Your task to perform on an android device: toggle wifi Image 0: 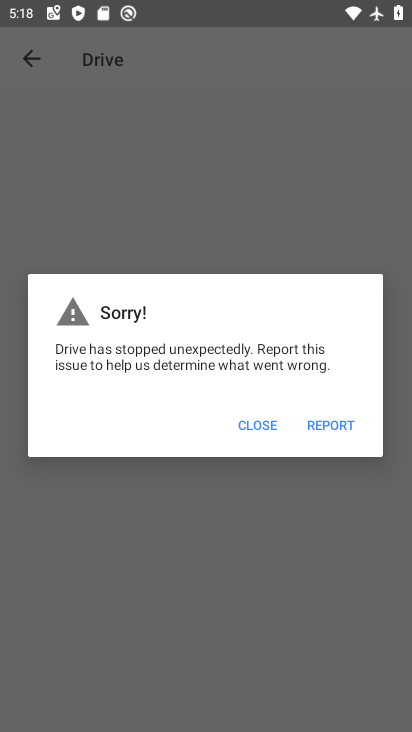
Step 0: press home button
Your task to perform on an android device: toggle wifi Image 1: 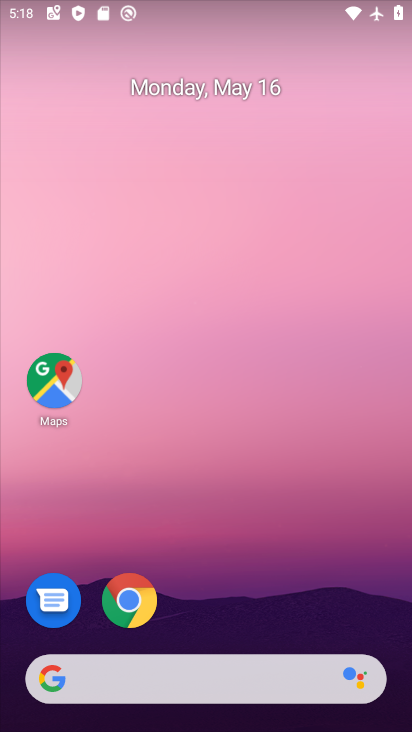
Step 1: drag from (224, 642) to (157, 52)
Your task to perform on an android device: toggle wifi Image 2: 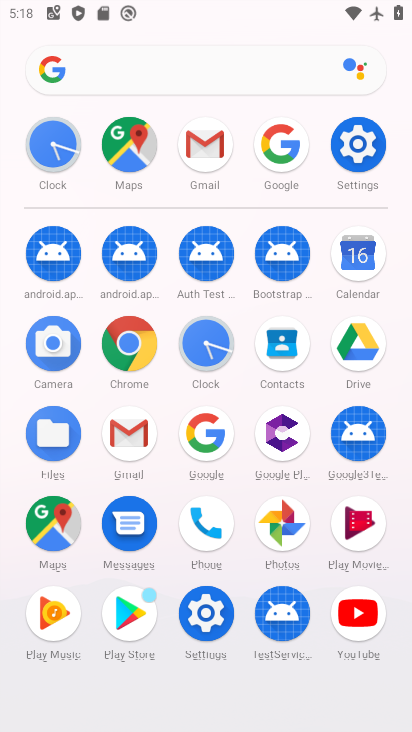
Step 2: click (360, 131)
Your task to perform on an android device: toggle wifi Image 3: 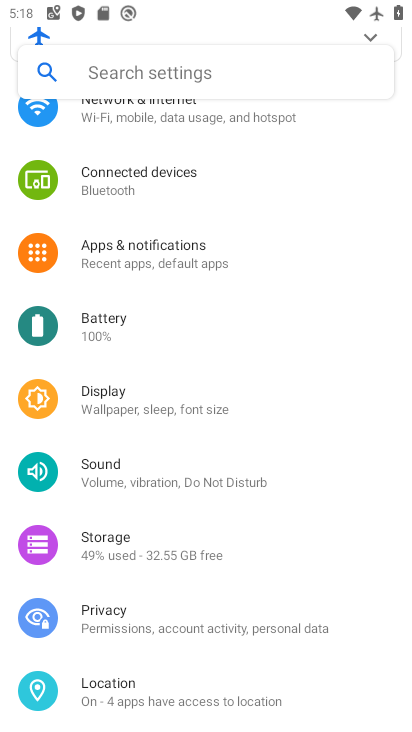
Step 3: click (168, 127)
Your task to perform on an android device: toggle wifi Image 4: 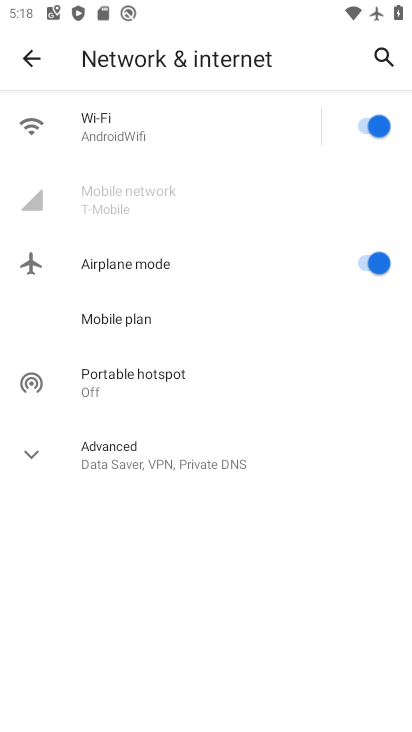
Step 4: click (374, 123)
Your task to perform on an android device: toggle wifi Image 5: 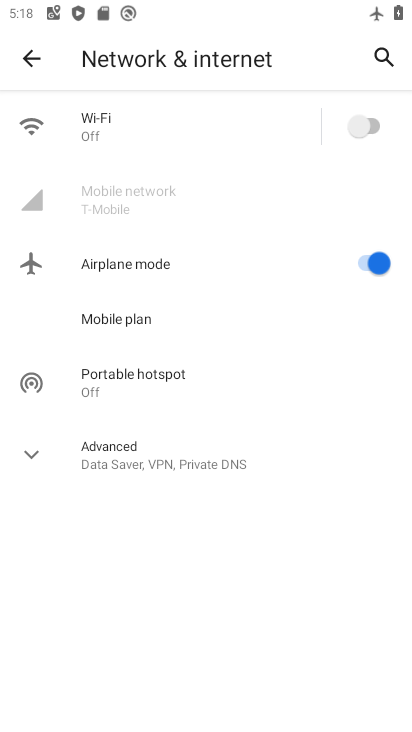
Step 5: task complete